Your task to perform on an android device: Go to location settings Image 0: 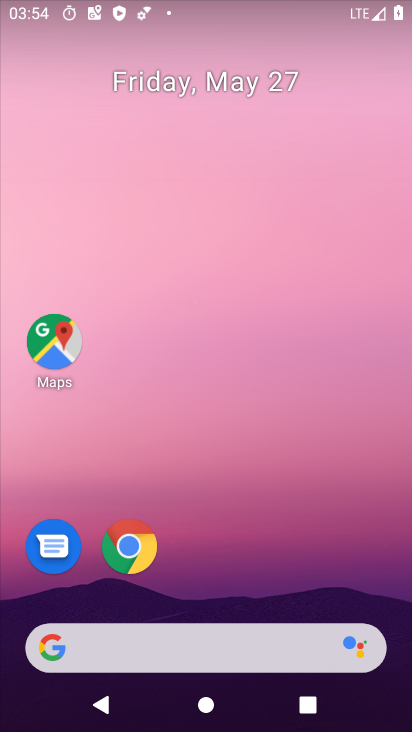
Step 0: drag from (394, 643) to (360, 262)
Your task to perform on an android device: Go to location settings Image 1: 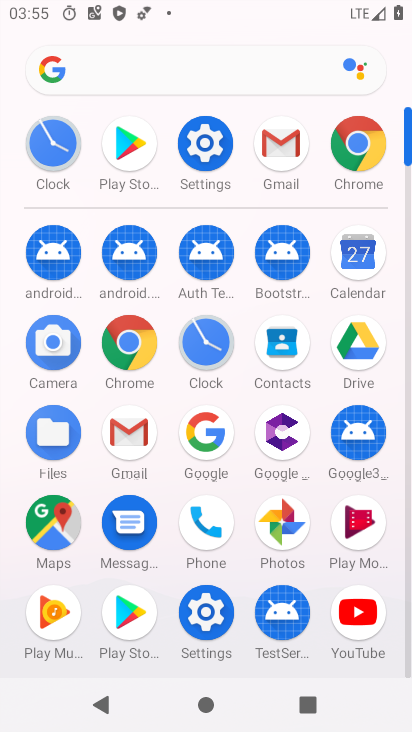
Step 1: click (186, 153)
Your task to perform on an android device: Go to location settings Image 2: 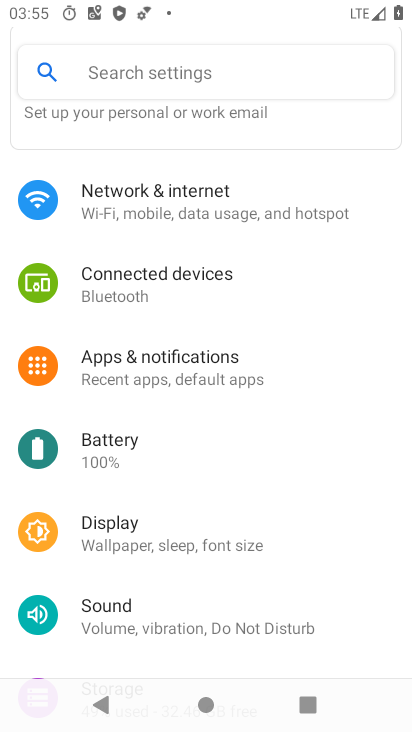
Step 2: drag from (313, 584) to (294, 255)
Your task to perform on an android device: Go to location settings Image 3: 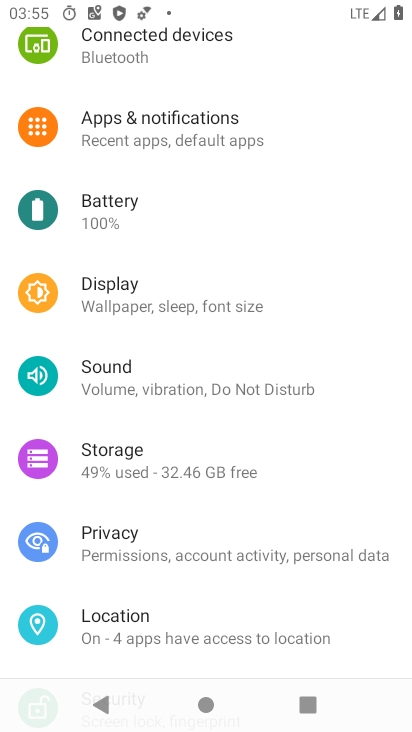
Step 3: click (116, 621)
Your task to perform on an android device: Go to location settings Image 4: 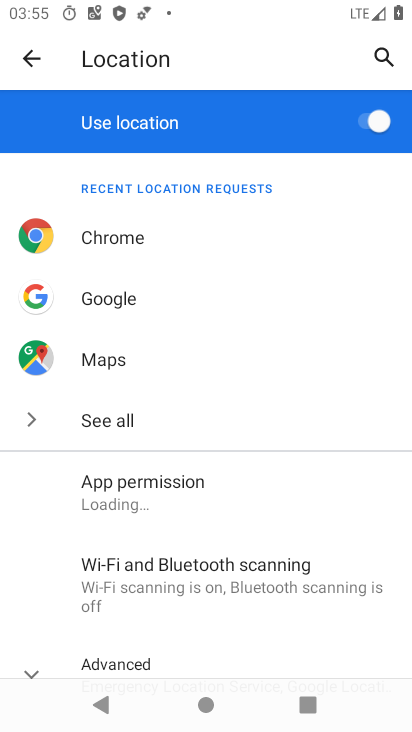
Step 4: task complete